Your task to perform on an android device: Go to location settings Image 0: 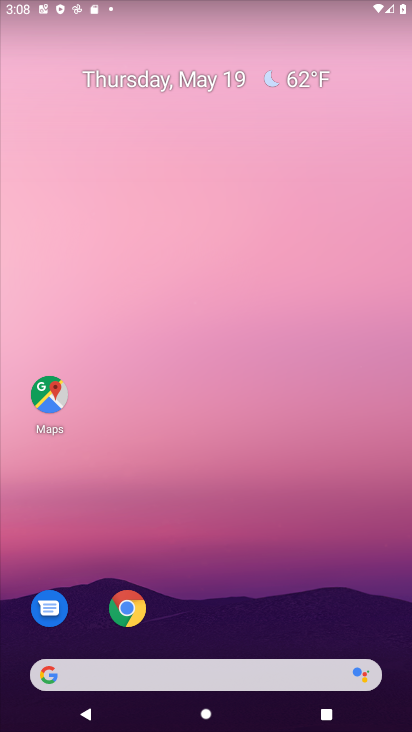
Step 0: drag from (328, 618) to (210, 145)
Your task to perform on an android device: Go to location settings Image 1: 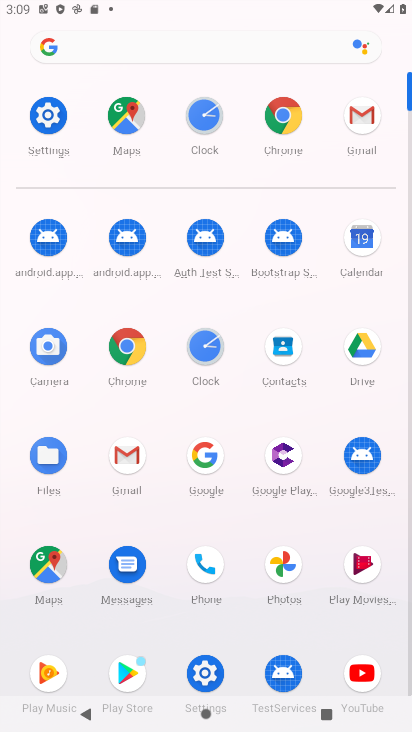
Step 1: click (70, 147)
Your task to perform on an android device: Go to location settings Image 2: 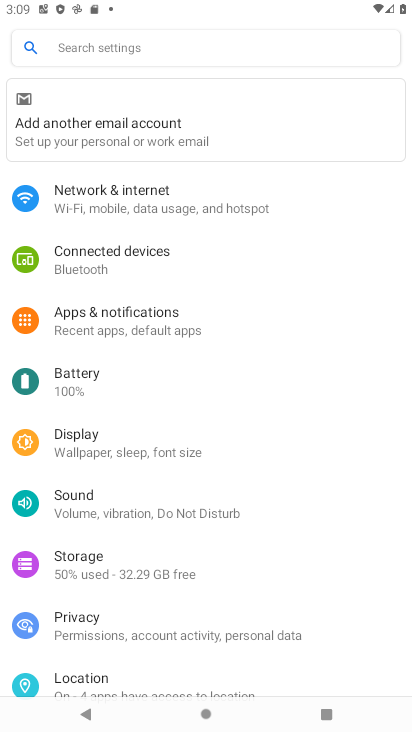
Step 2: click (167, 678)
Your task to perform on an android device: Go to location settings Image 3: 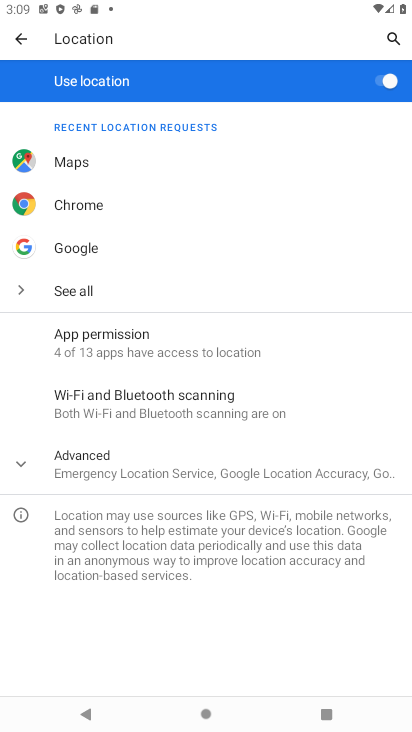
Step 3: task complete